Your task to perform on an android device: change notifications settings Image 0: 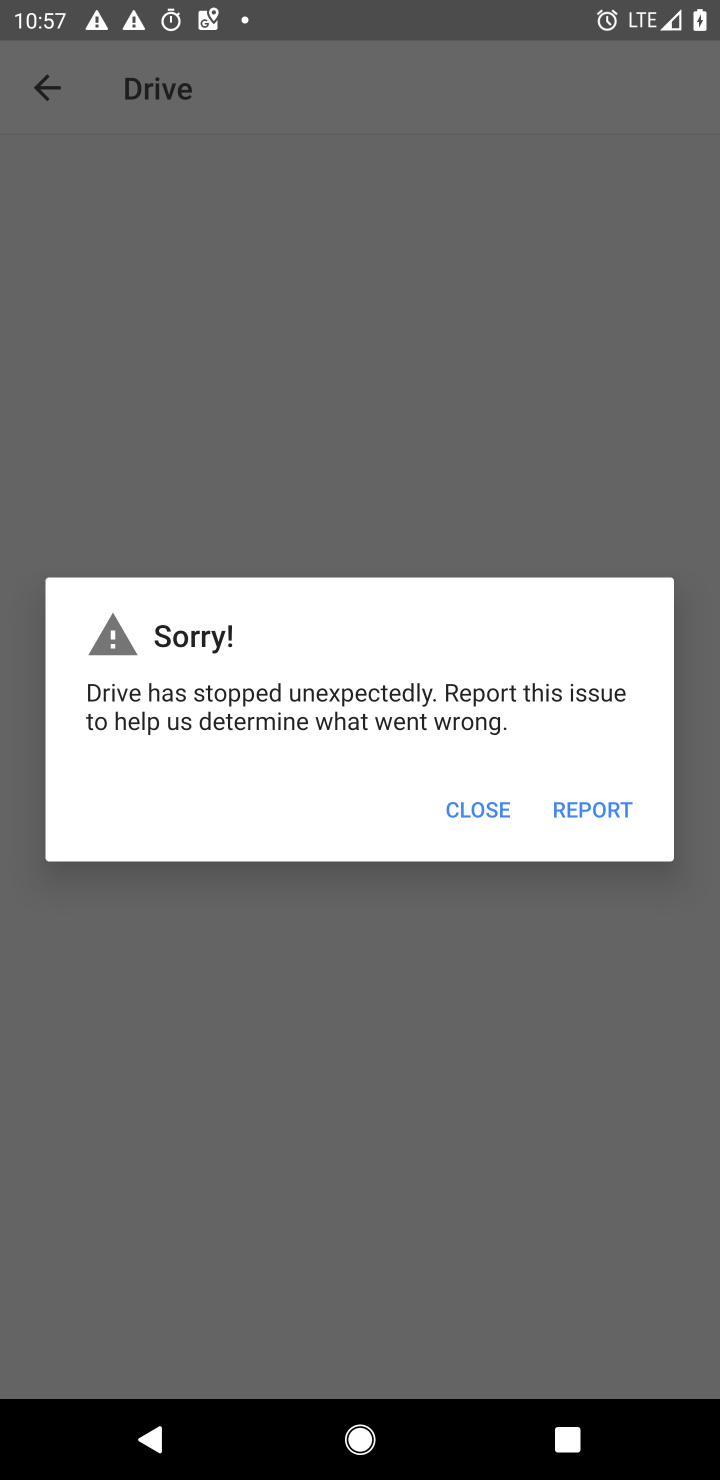
Step 0: press back button
Your task to perform on an android device: change notifications settings Image 1: 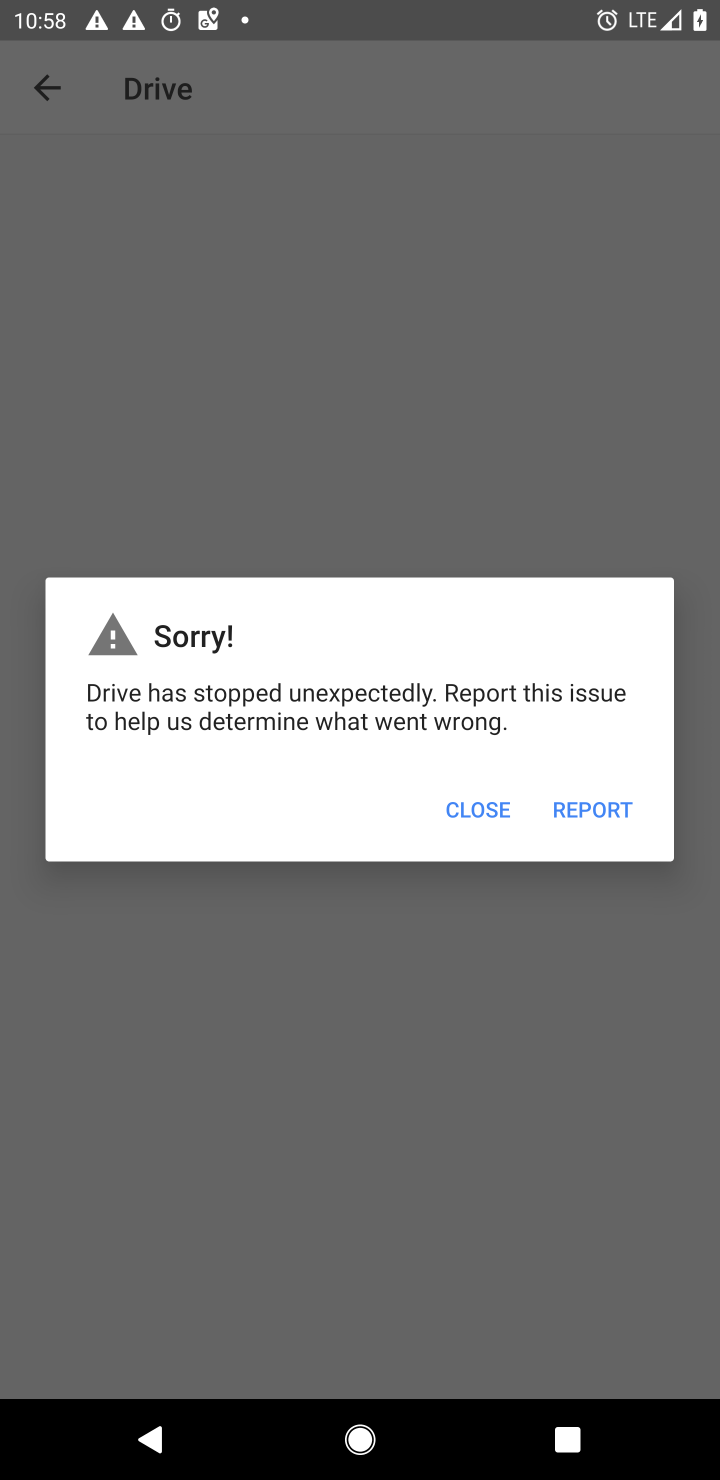
Step 1: press home button
Your task to perform on an android device: change notifications settings Image 2: 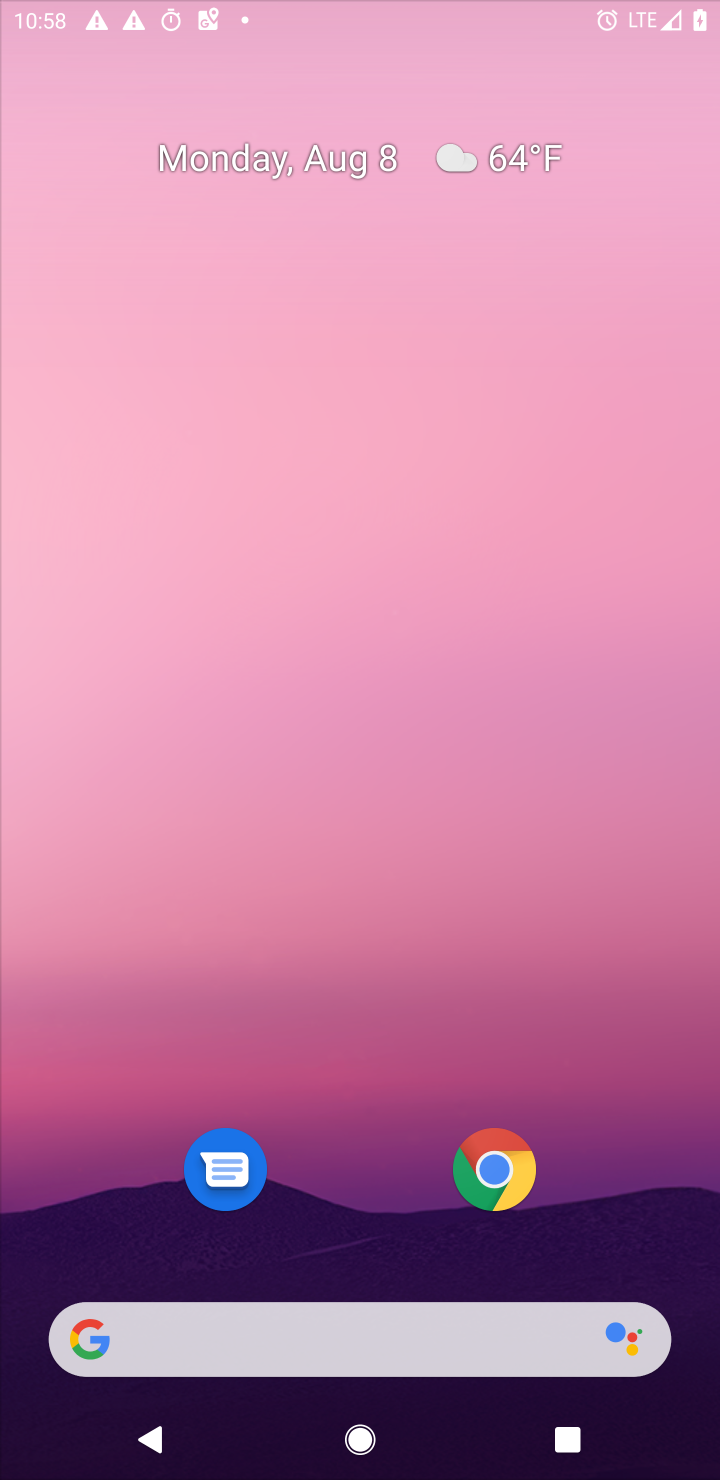
Step 2: drag from (337, 1184) to (483, 7)
Your task to perform on an android device: change notifications settings Image 3: 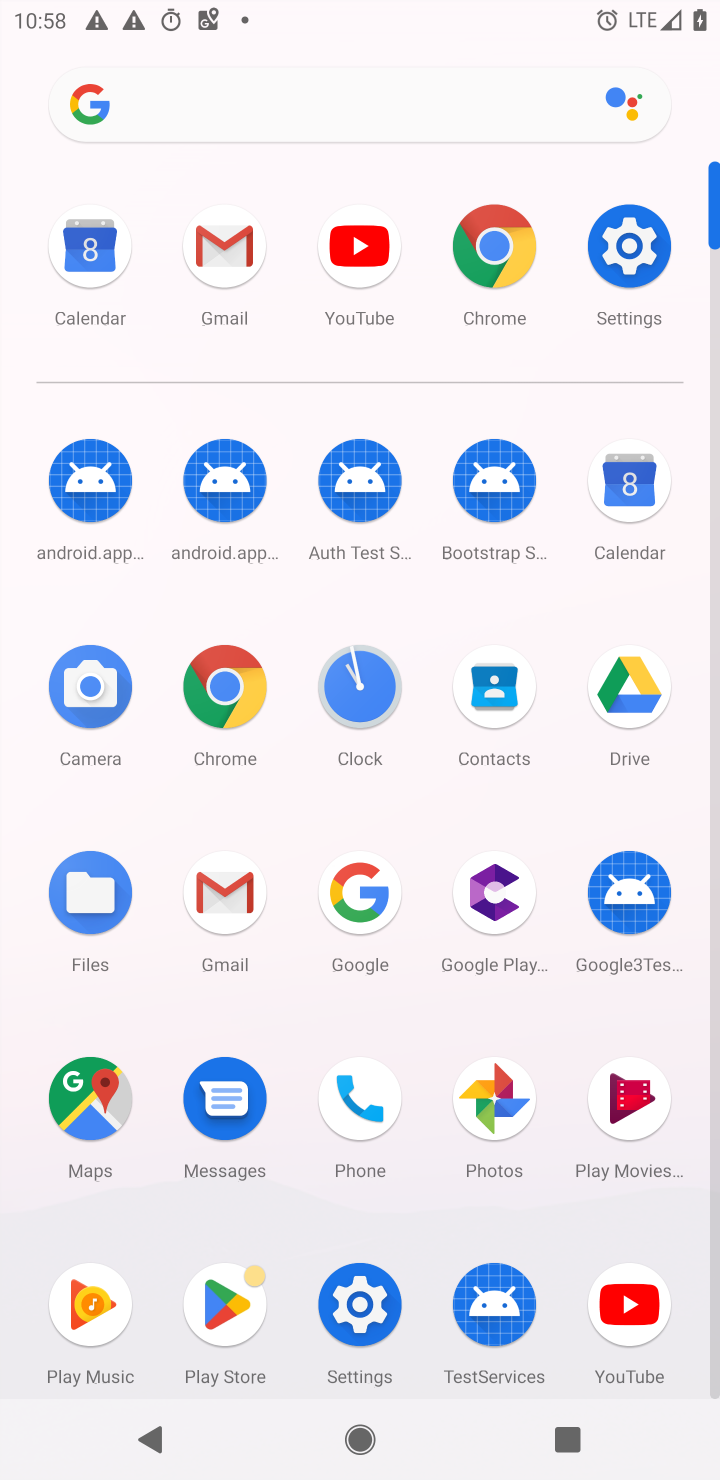
Step 3: click (620, 273)
Your task to perform on an android device: change notifications settings Image 4: 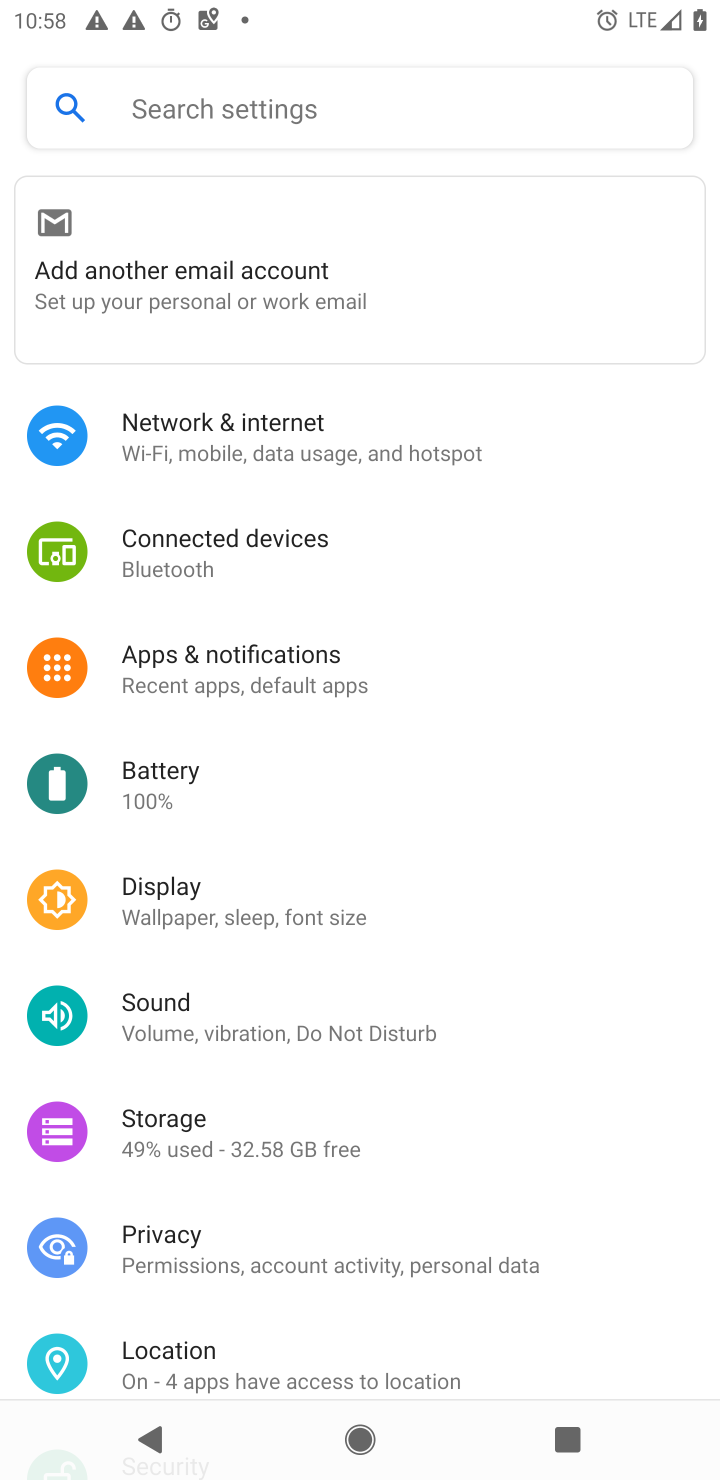
Step 4: click (422, 675)
Your task to perform on an android device: change notifications settings Image 5: 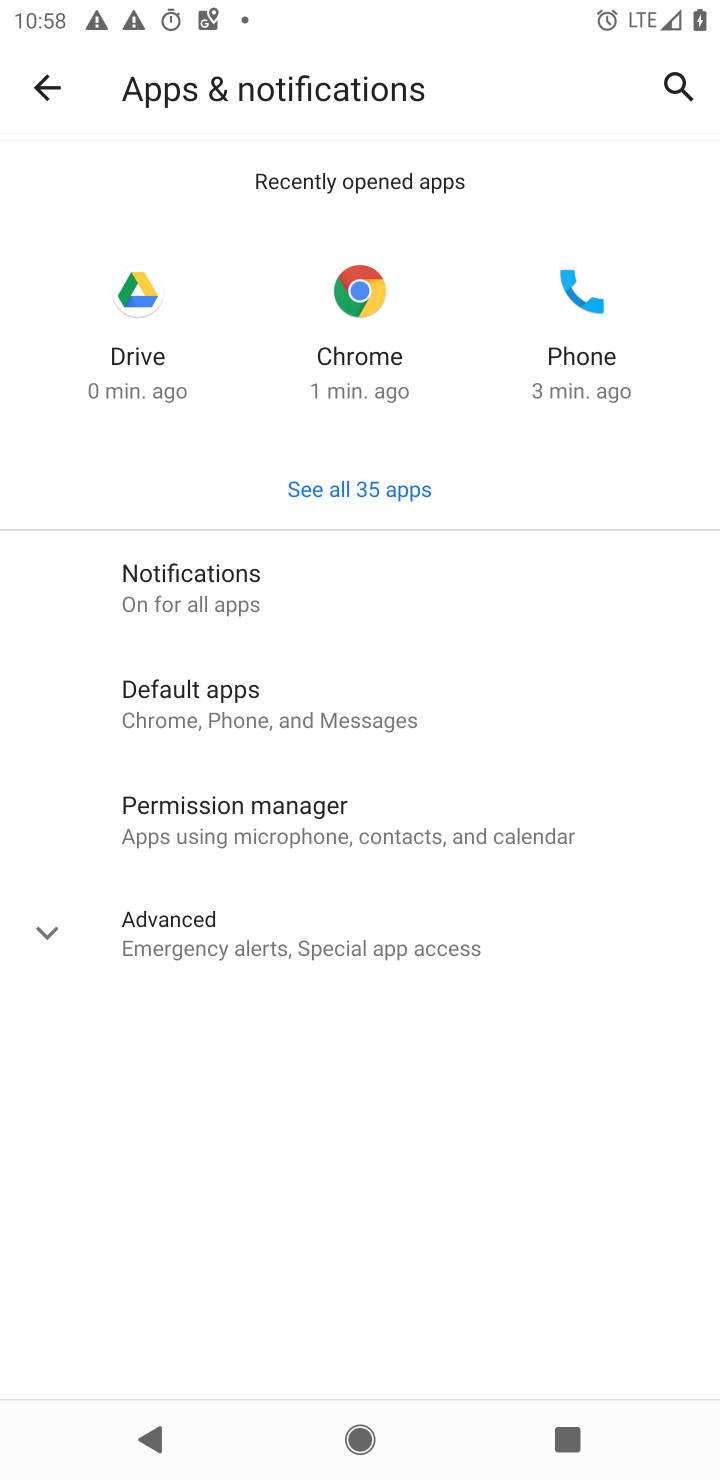
Step 5: click (204, 557)
Your task to perform on an android device: change notifications settings Image 6: 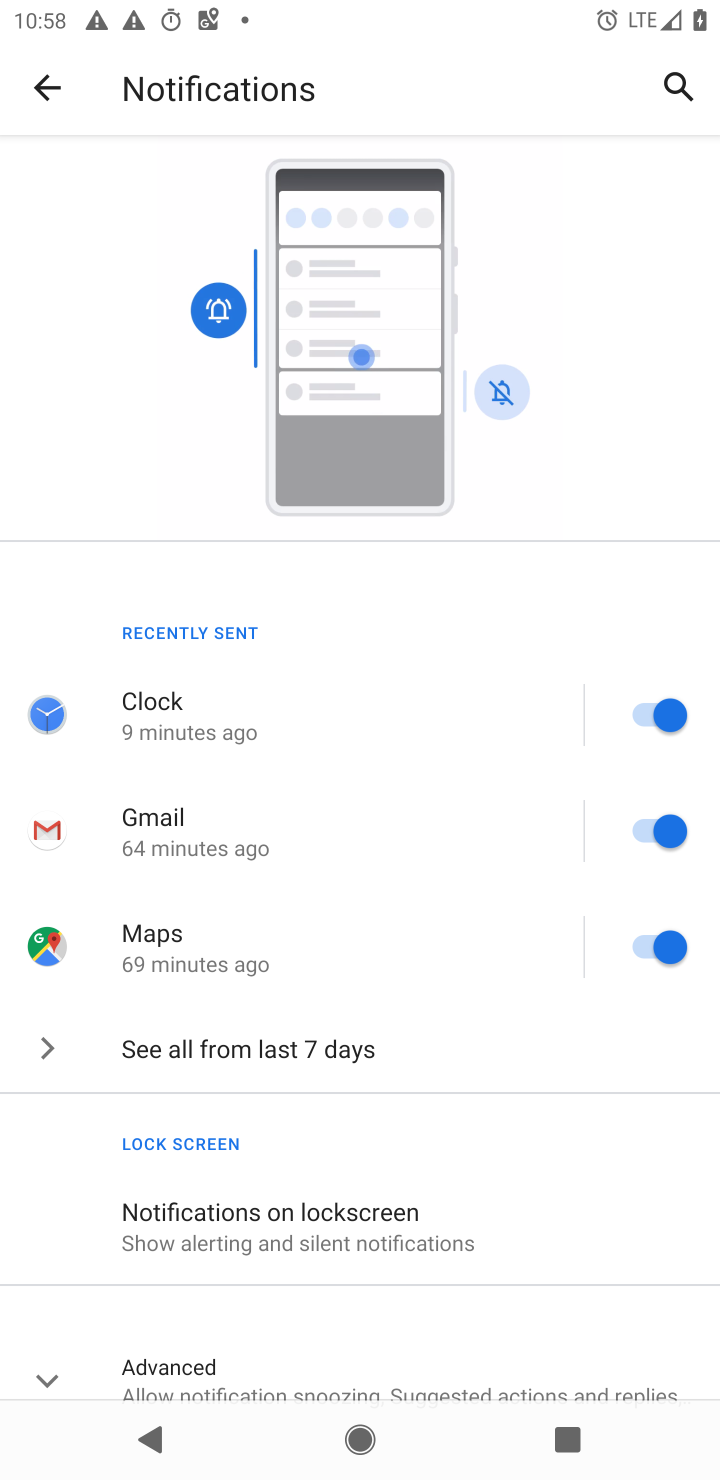
Step 6: drag from (377, 1078) to (513, 388)
Your task to perform on an android device: change notifications settings Image 7: 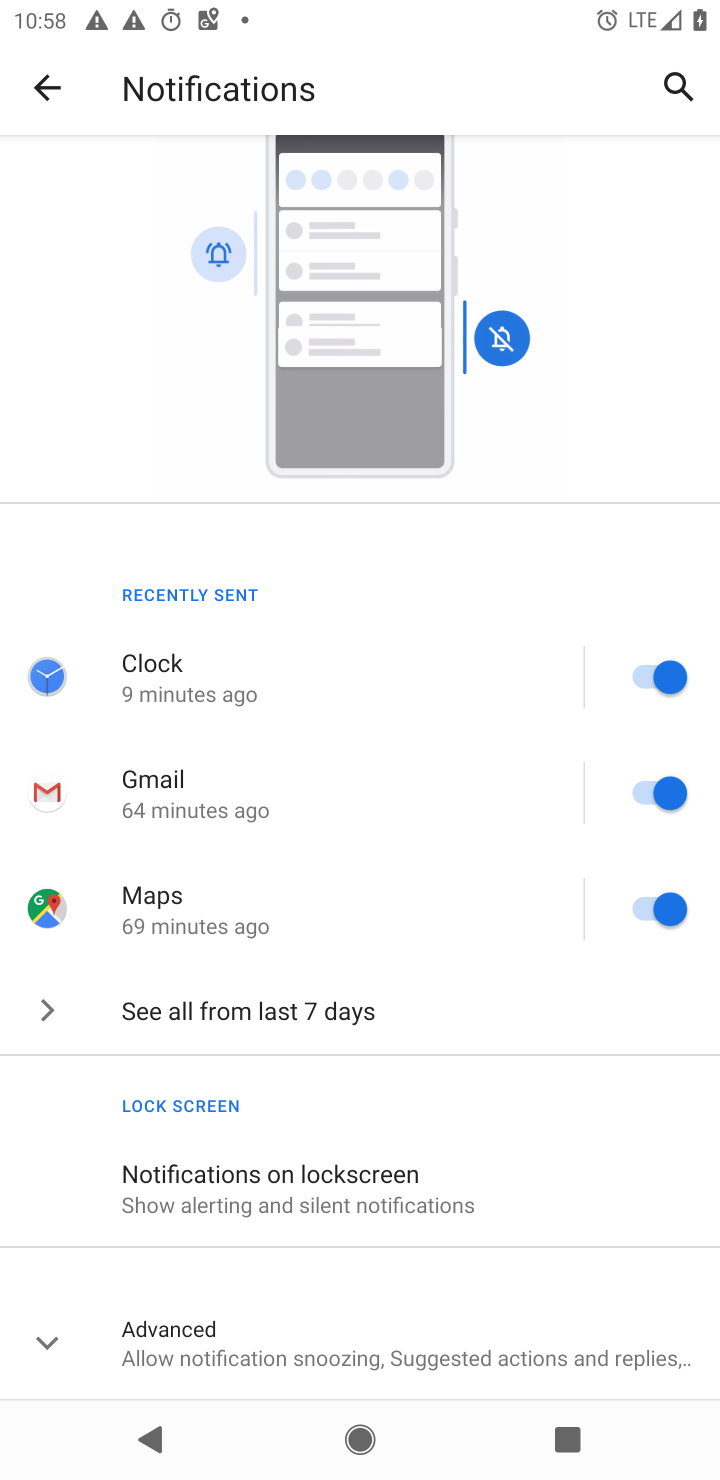
Step 7: drag from (316, 1124) to (415, 347)
Your task to perform on an android device: change notifications settings Image 8: 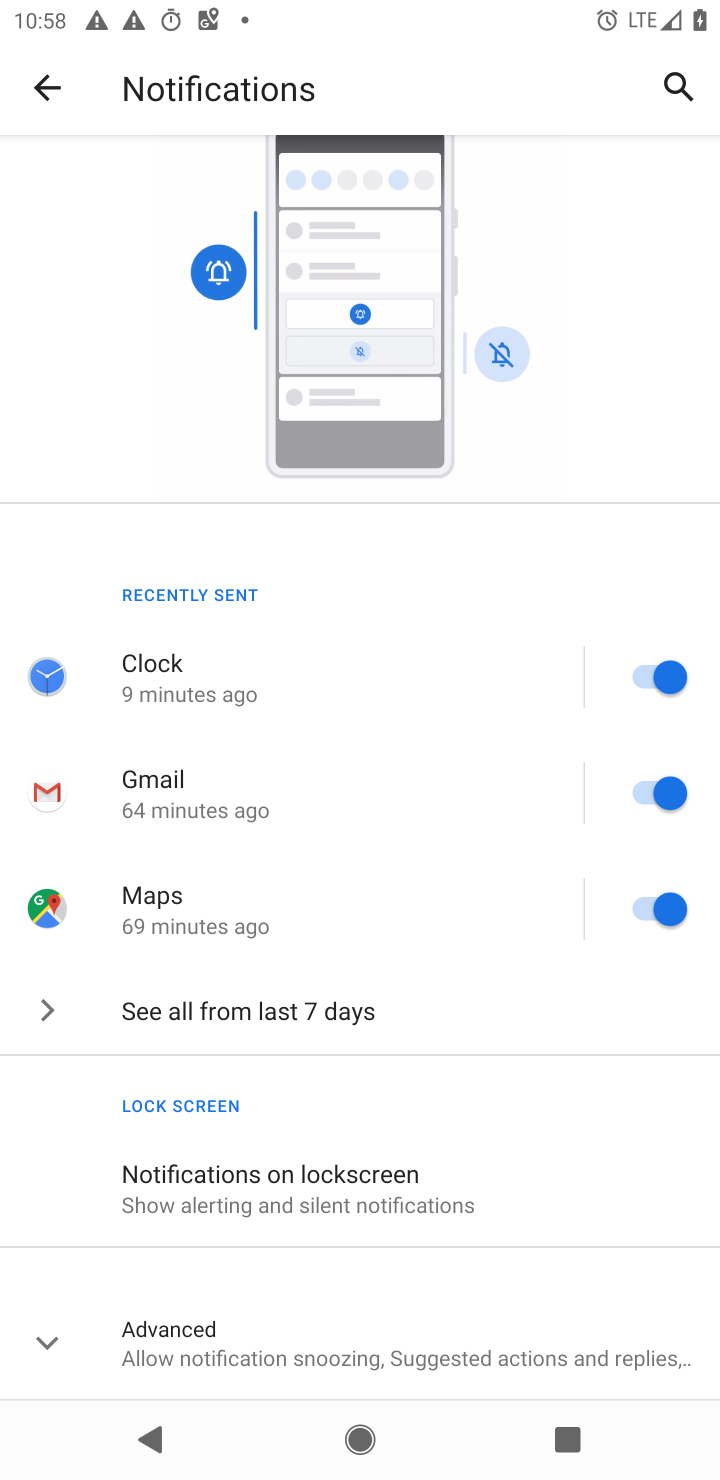
Step 8: click (192, 1335)
Your task to perform on an android device: change notifications settings Image 9: 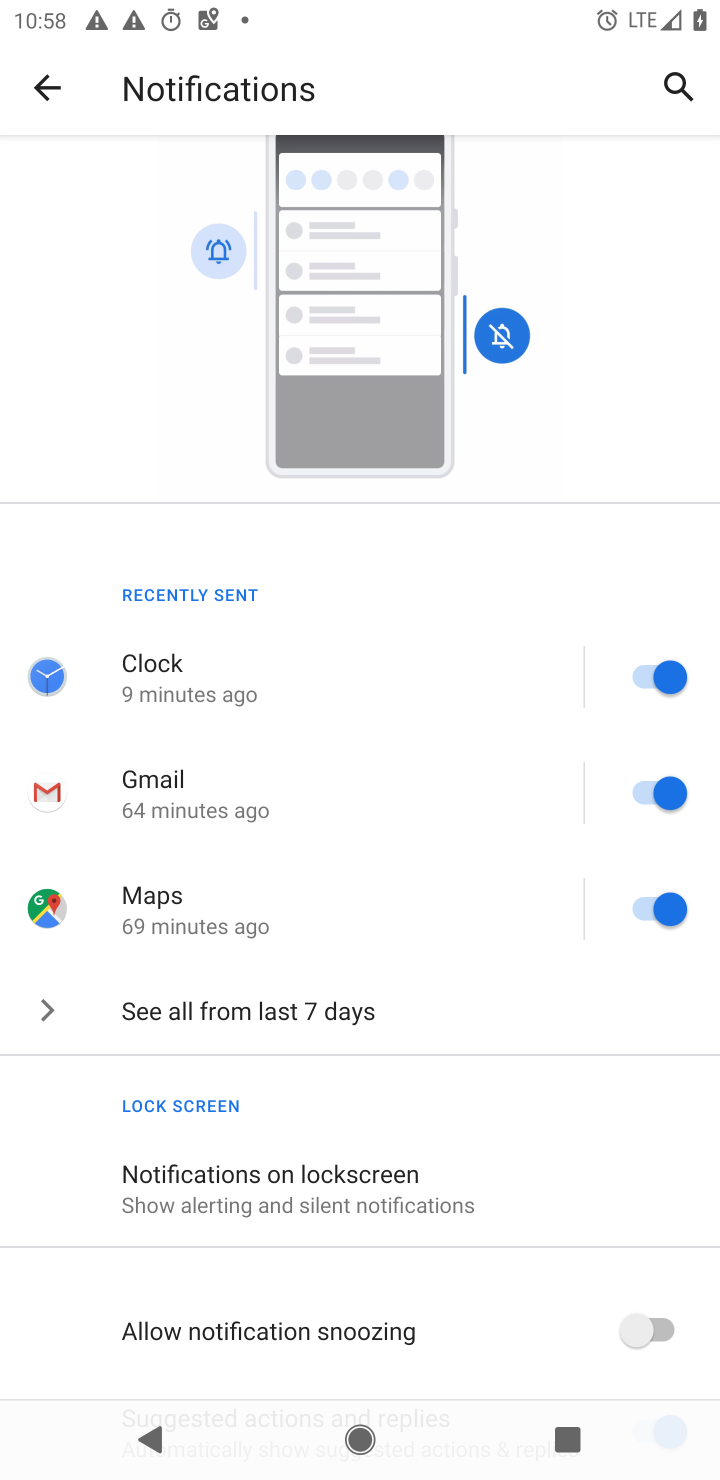
Step 9: drag from (216, 1322) to (418, 531)
Your task to perform on an android device: change notifications settings Image 10: 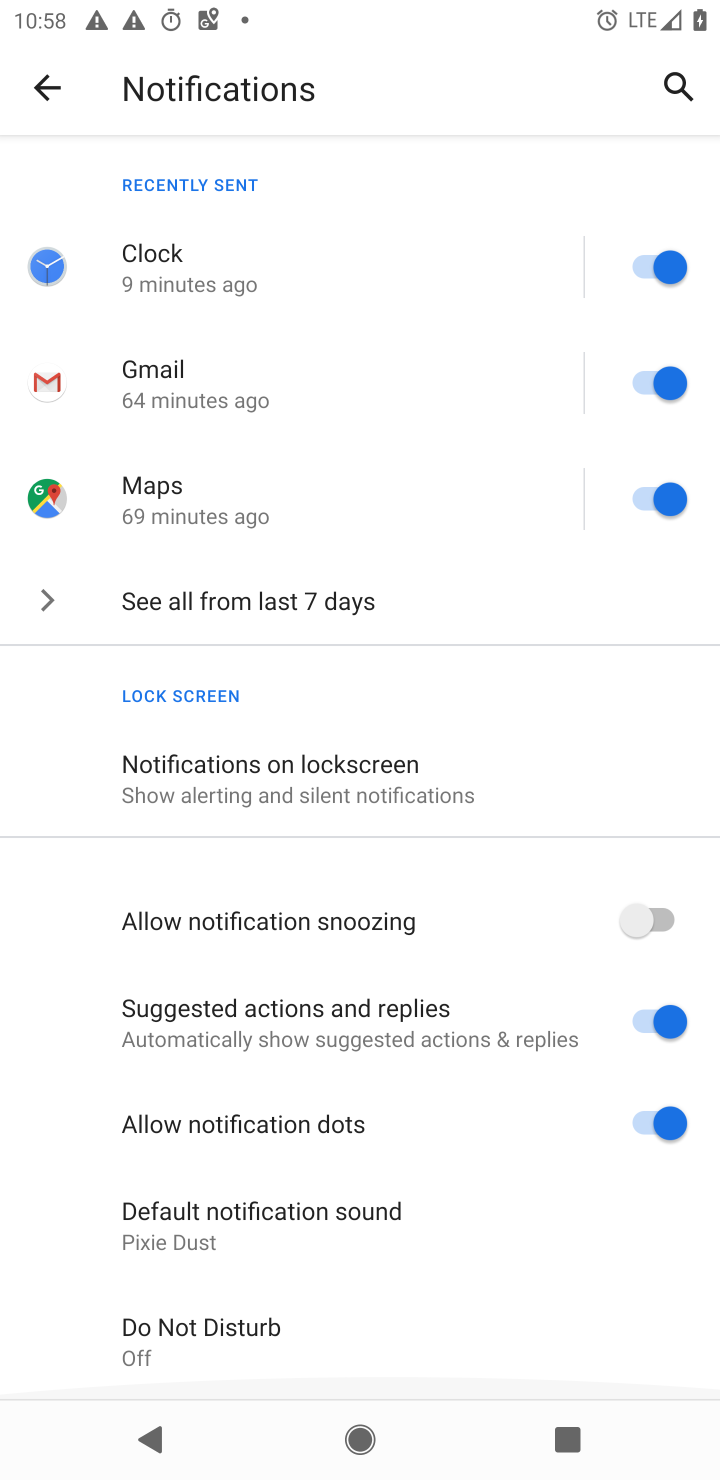
Step 10: click (650, 910)
Your task to perform on an android device: change notifications settings Image 11: 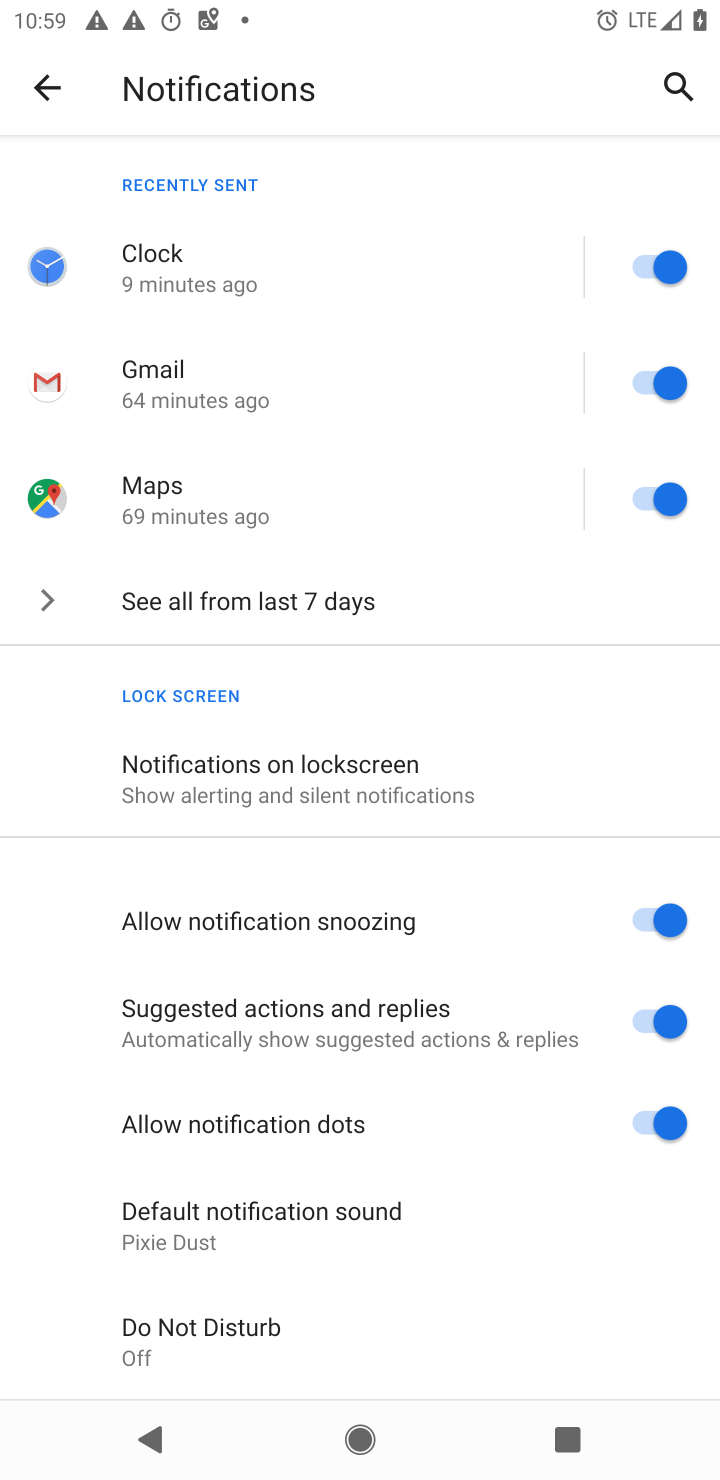
Step 11: task complete